Your task to perform on an android device: Empty the shopping cart on walmart. Search for jbl charge 4 on walmart, select the first entry, and add it to the cart. Image 0: 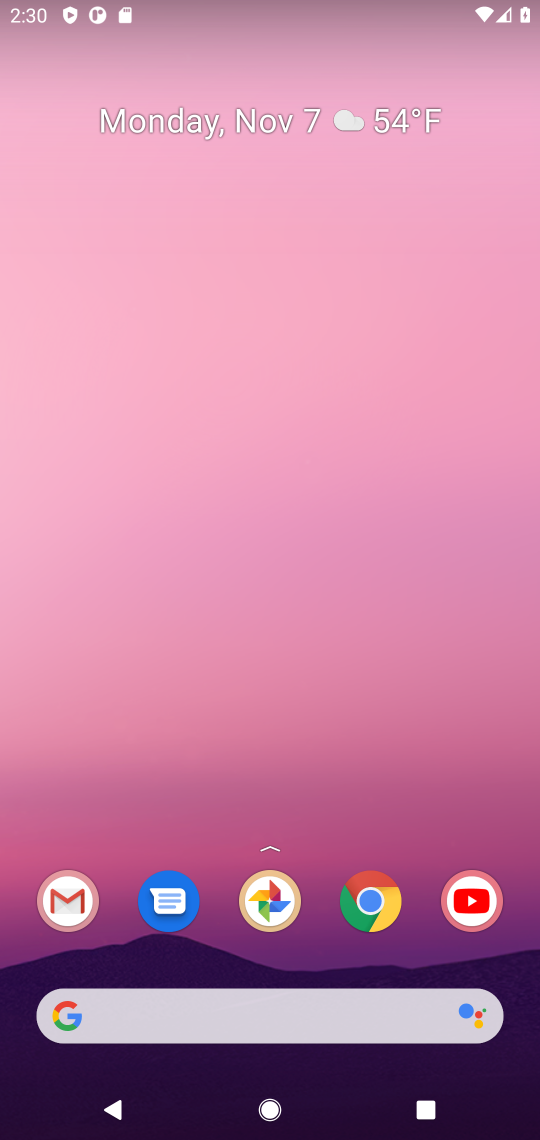
Step 0: click (371, 905)
Your task to perform on an android device: Empty the shopping cart on walmart. Search for jbl charge 4 on walmart, select the first entry, and add it to the cart. Image 1: 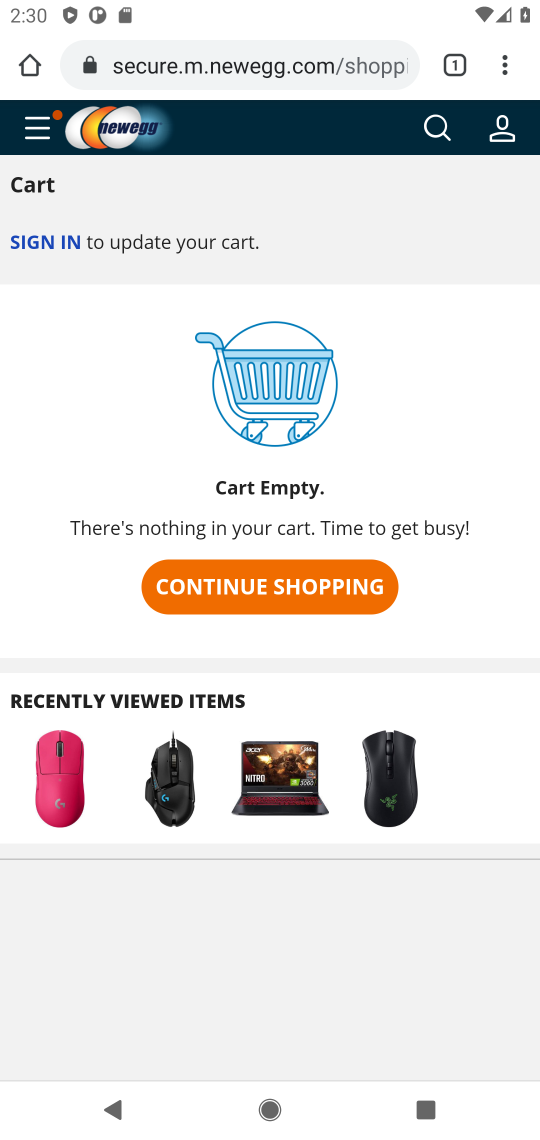
Step 1: click (217, 73)
Your task to perform on an android device: Empty the shopping cart on walmart. Search for jbl charge 4 on walmart, select the first entry, and add it to the cart. Image 2: 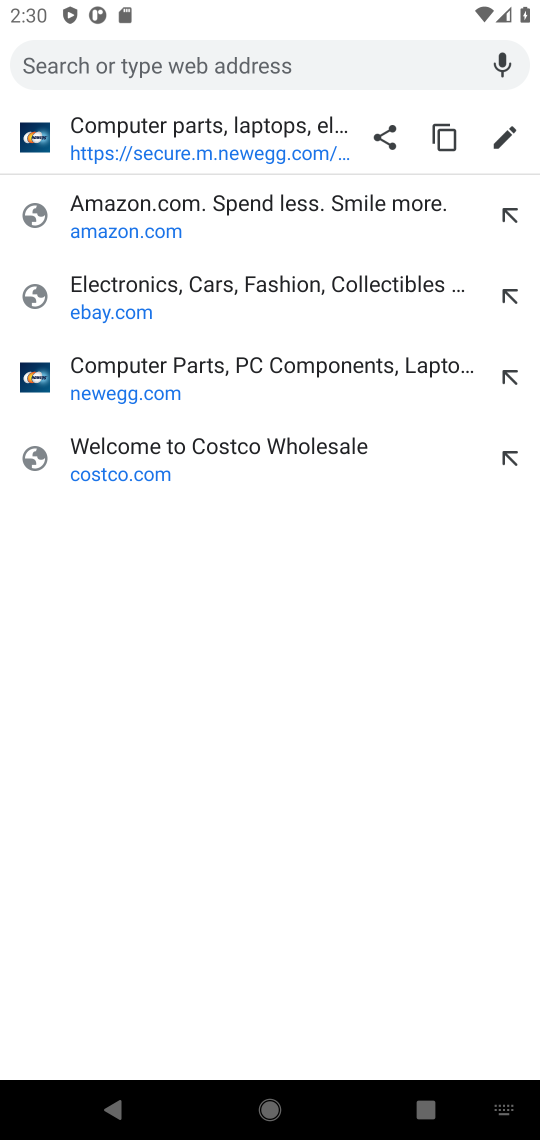
Step 2: type "walmart.com"
Your task to perform on an android device: Empty the shopping cart on walmart. Search for jbl charge 4 on walmart, select the first entry, and add it to the cart. Image 3: 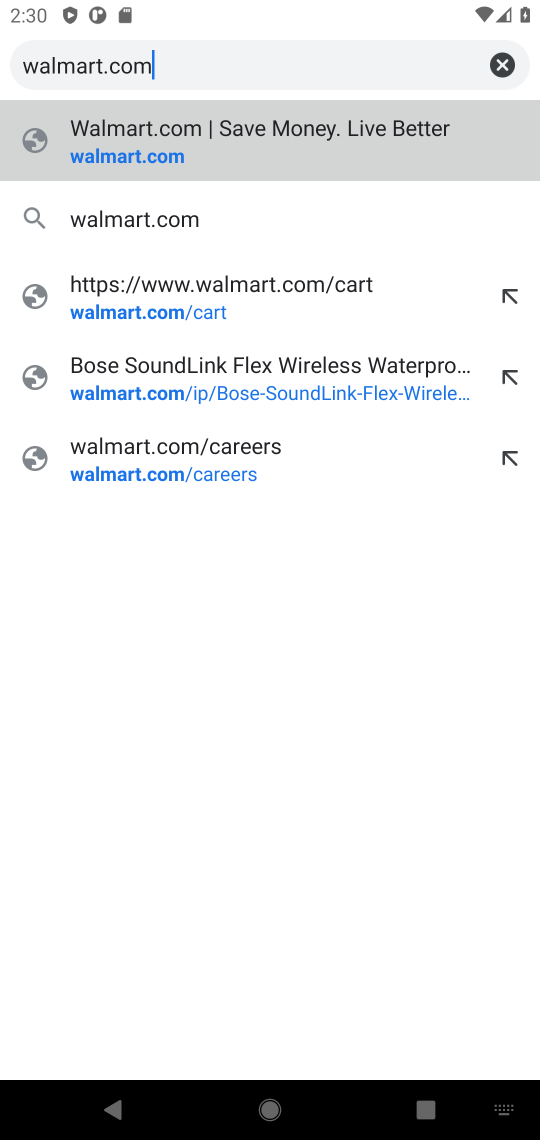
Step 3: click (124, 163)
Your task to perform on an android device: Empty the shopping cart on walmart. Search for jbl charge 4 on walmart, select the first entry, and add it to the cart. Image 4: 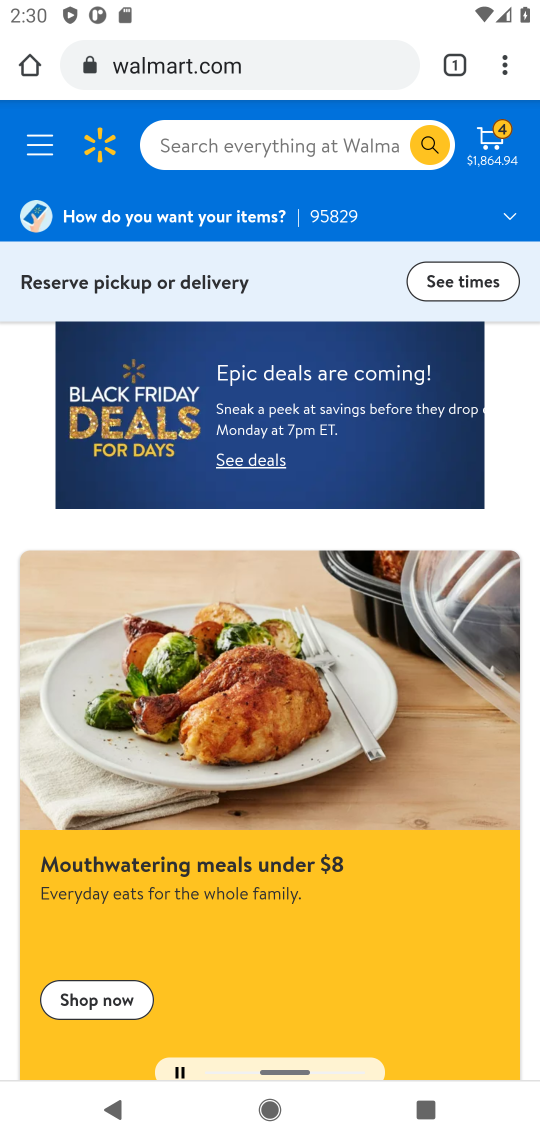
Step 4: click (486, 146)
Your task to perform on an android device: Empty the shopping cart on walmart. Search for jbl charge 4 on walmart, select the first entry, and add it to the cart. Image 5: 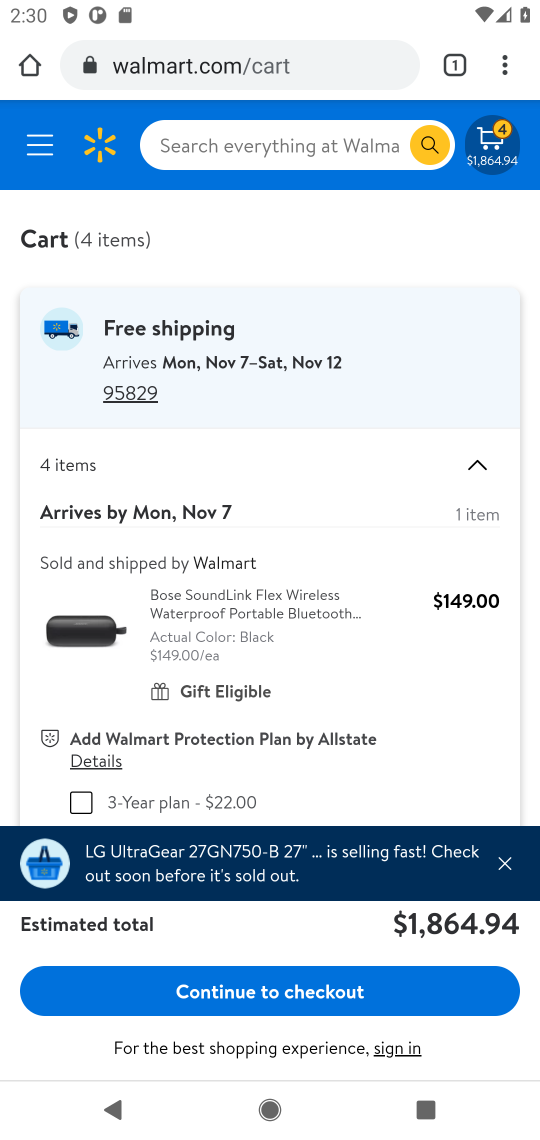
Step 5: drag from (371, 669) to (361, 483)
Your task to perform on an android device: Empty the shopping cart on walmart. Search for jbl charge 4 on walmart, select the first entry, and add it to the cart. Image 6: 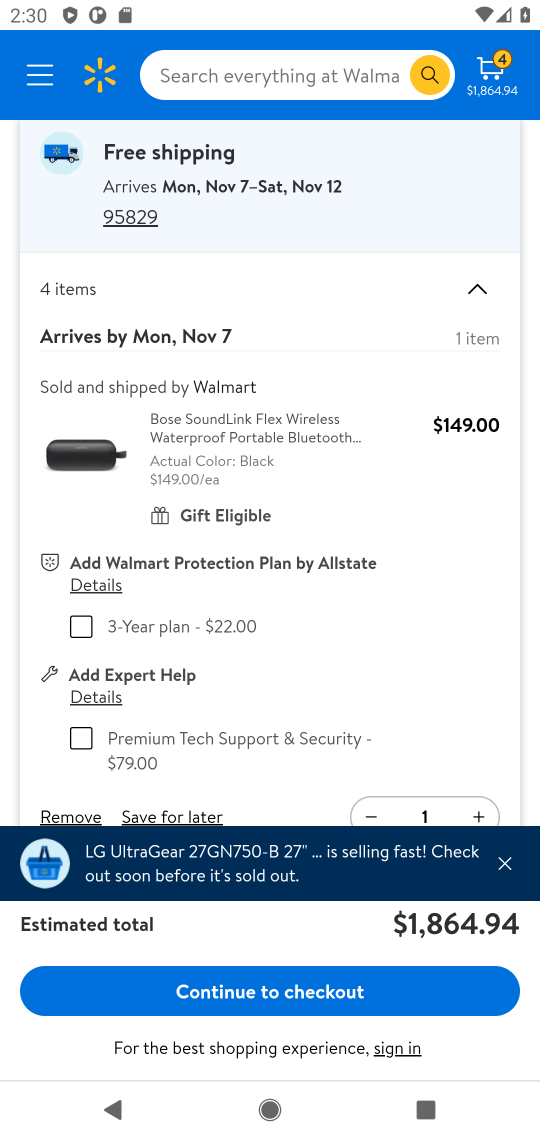
Step 6: drag from (277, 675) to (277, 429)
Your task to perform on an android device: Empty the shopping cart on walmart. Search for jbl charge 4 on walmart, select the first entry, and add it to the cart. Image 7: 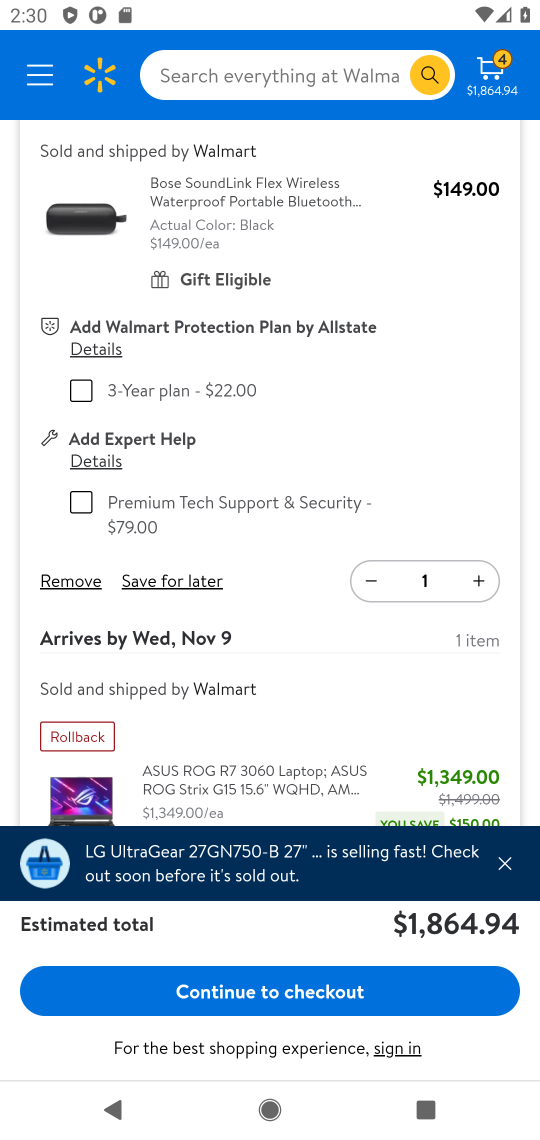
Step 7: click (91, 584)
Your task to perform on an android device: Empty the shopping cart on walmart. Search for jbl charge 4 on walmart, select the first entry, and add it to the cart. Image 8: 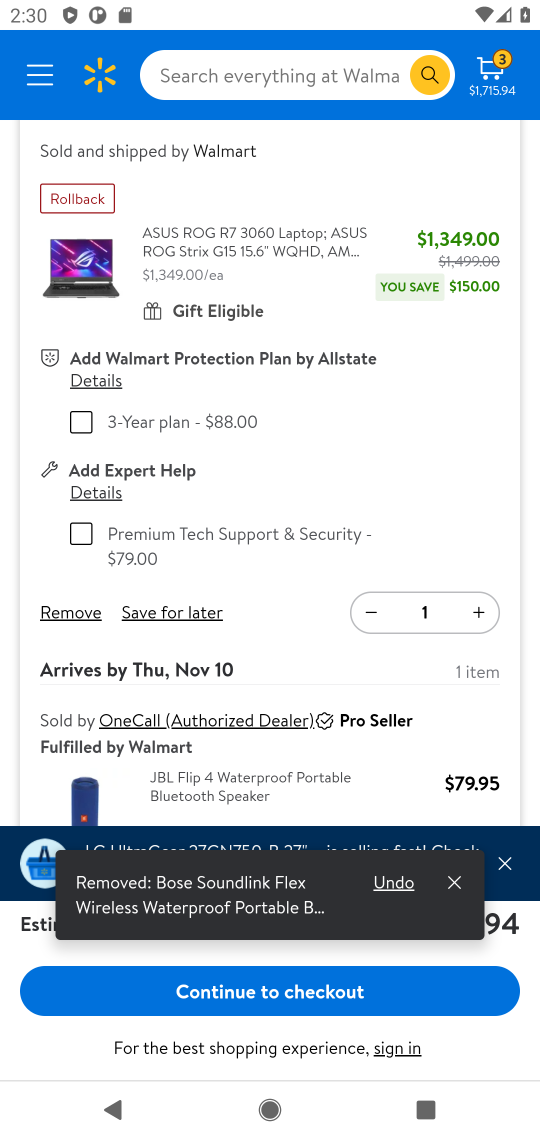
Step 8: click (72, 615)
Your task to perform on an android device: Empty the shopping cart on walmart. Search for jbl charge 4 on walmart, select the first entry, and add it to the cart. Image 9: 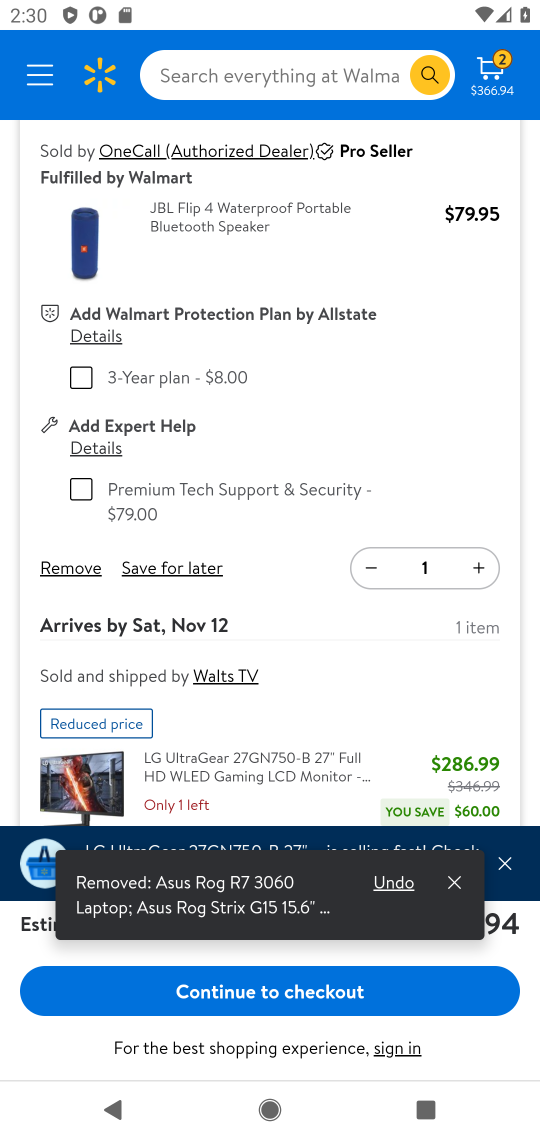
Step 9: click (65, 574)
Your task to perform on an android device: Empty the shopping cart on walmart. Search for jbl charge 4 on walmart, select the first entry, and add it to the cart. Image 10: 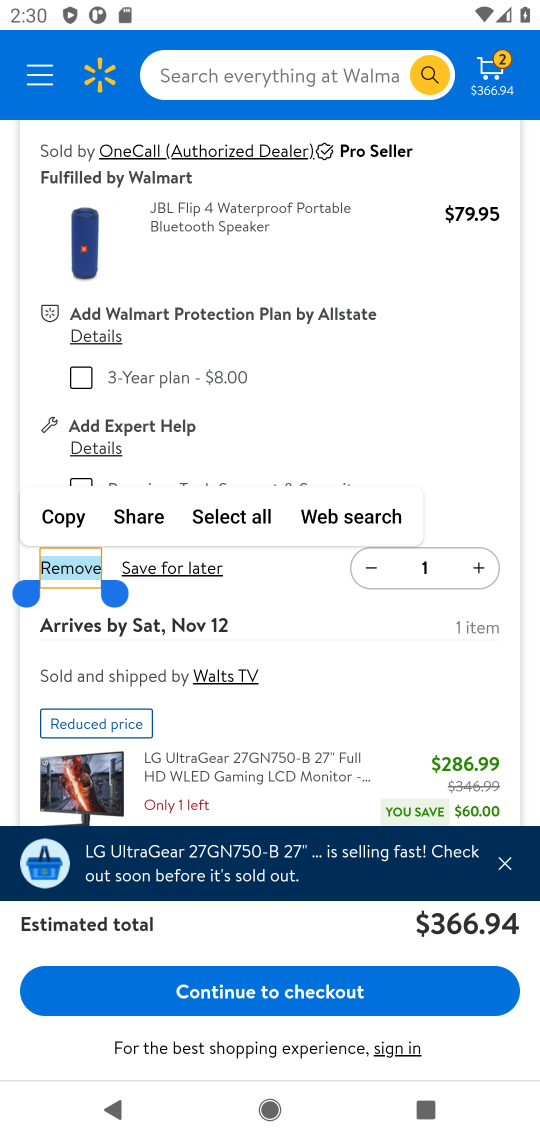
Step 10: click (65, 574)
Your task to perform on an android device: Empty the shopping cart on walmart. Search for jbl charge 4 on walmart, select the first entry, and add it to the cart. Image 11: 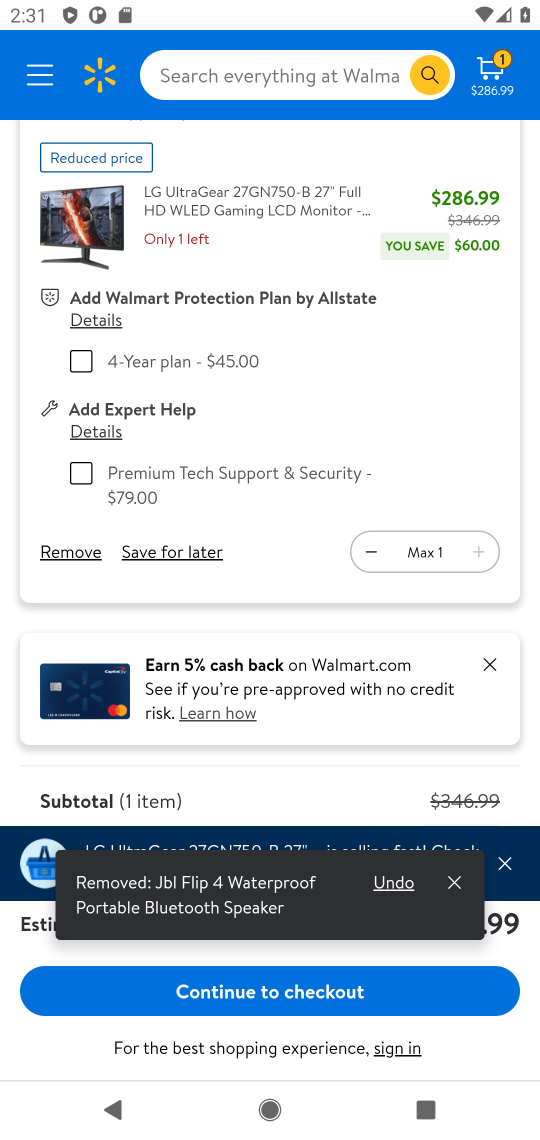
Step 11: click (64, 555)
Your task to perform on an android device: Empty the shopping cart on walmart. Search for jbl charge 4 on walmart, select the first entry, and add it to the cart. Image 12: 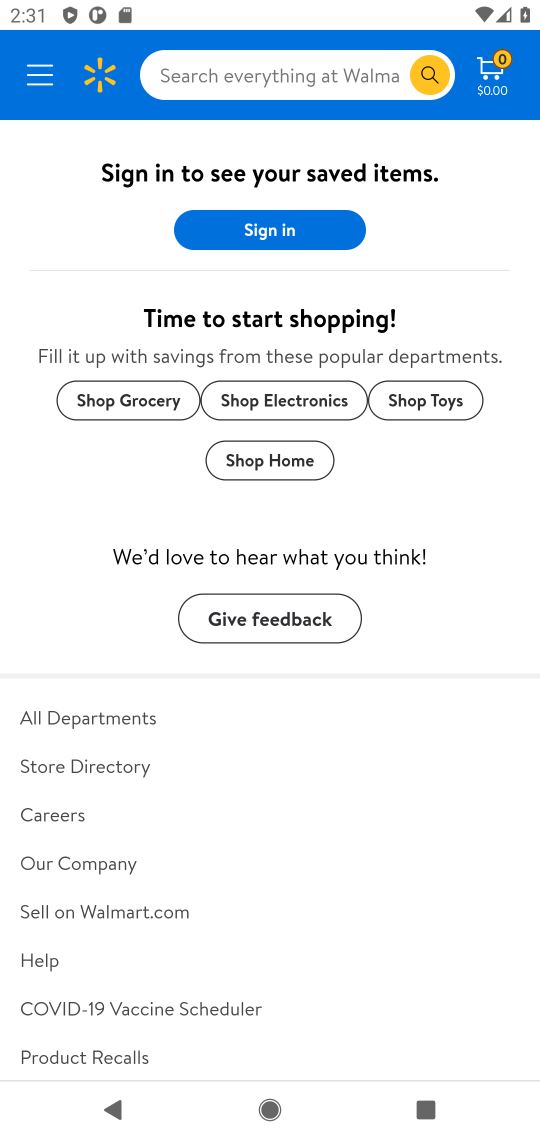
Step 12: click (289, 82)
Your task to perform on an android device: Empty the shopping cart on walmart. Search for jbl charge 4 on walmart, select the first entry, and add it to the cart. Image 13: 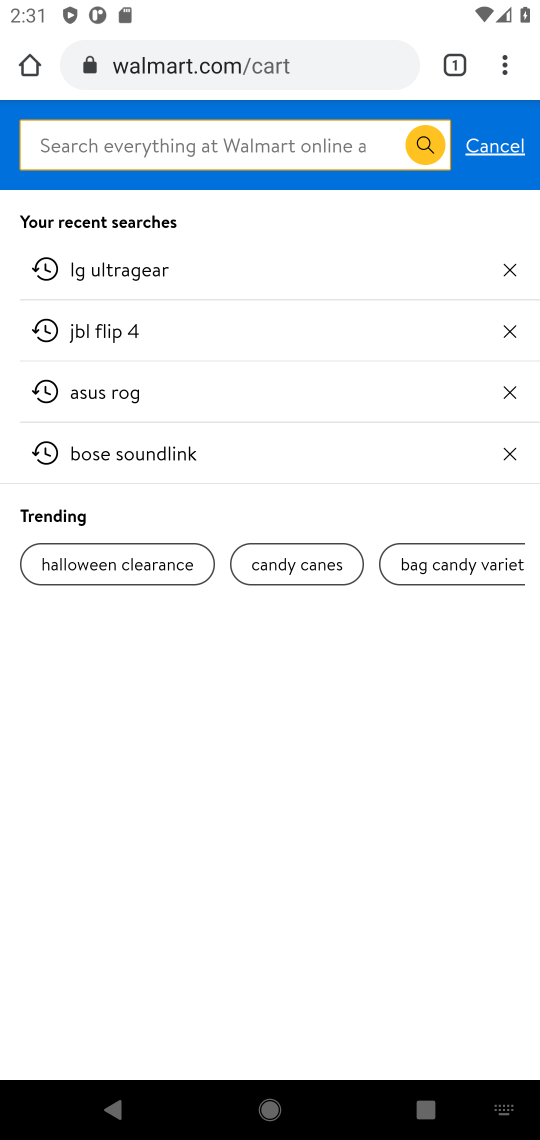
Step 13: type " jbl charge 4"
Your task to perform on an android device: Empty the shopping cart on walmart. Search for jbl charge 4 on walmart, select the first entry, and add it to the cart. Image 14: 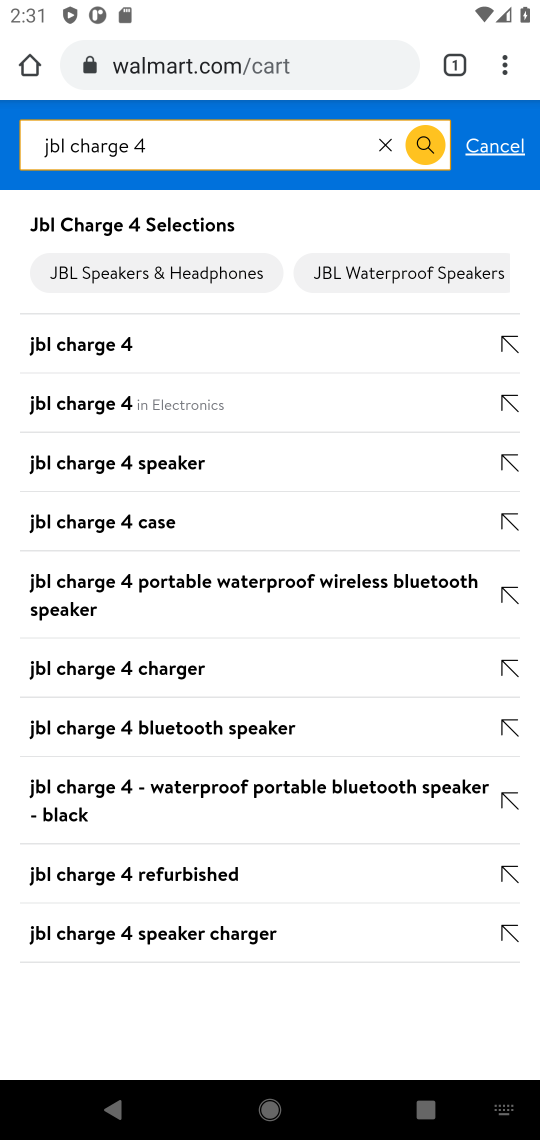
Step 14: click (87, 355)
Your task to perform on an android device: Empty the shopping cart on walmart. Search for jbl charge 4 on walmart, select the first entry, and add it to the cart. Image 15: 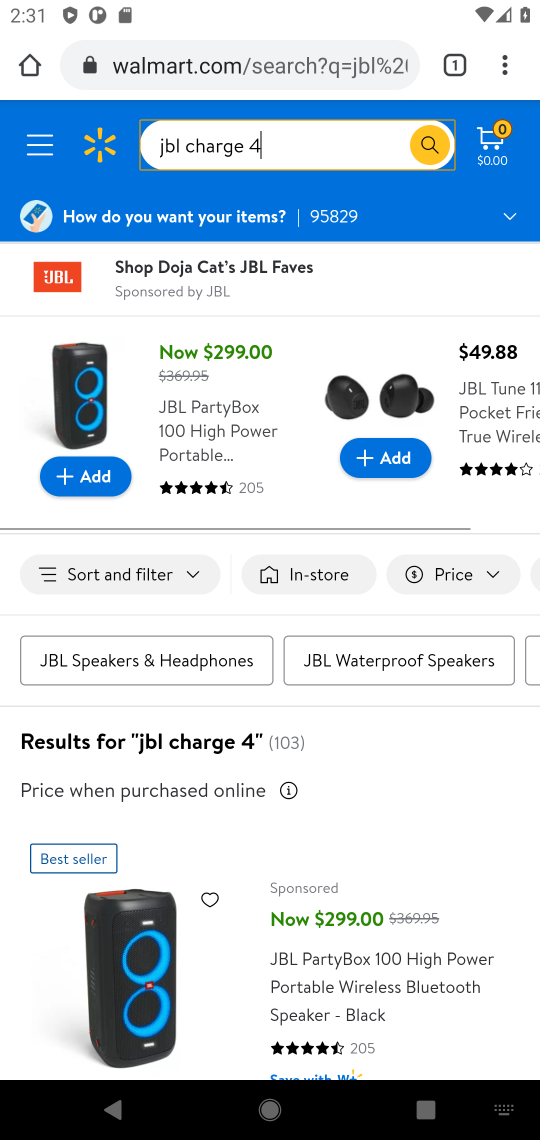
Step 15: task complete